Your task to perform on an android device: turn off wifi Image 0: 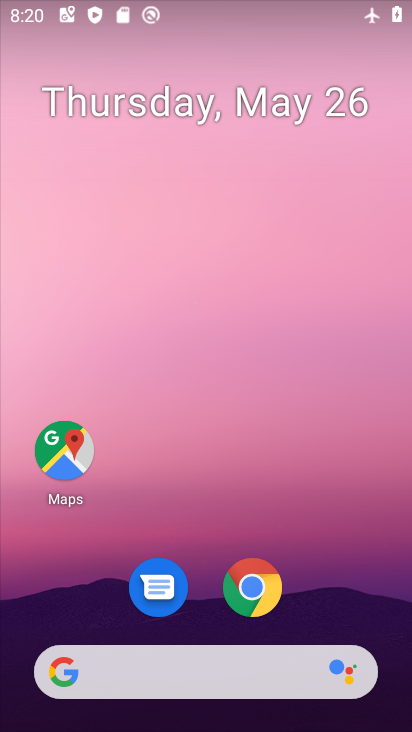
Step 0: drag from (206, 622) to (208, 258)
Your task to perform on an android device: turn off wifi Image 1: 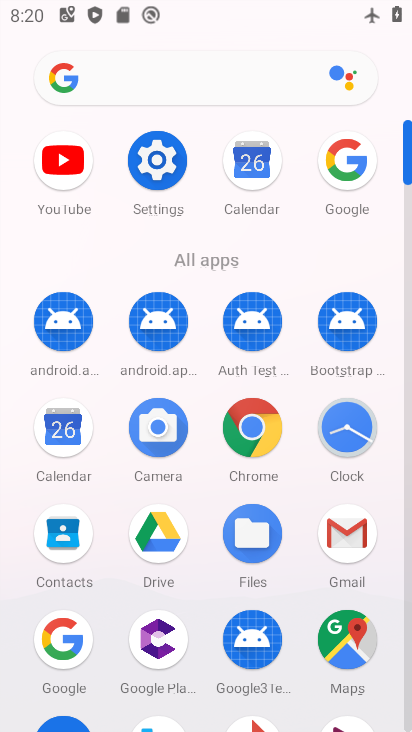
Step 1: click (180, 156)
Your task to perform on an android device: turn off wifi Image 2: 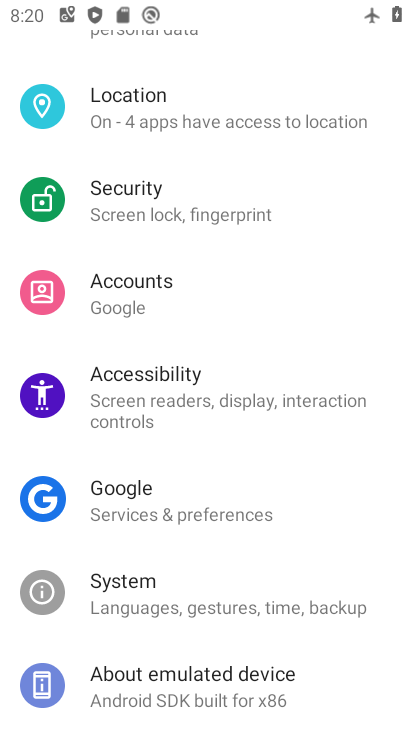
Step 2: drag from (180, 156) to (192, 474)
Your task to perform on an android device: turn off wifi Image 3: 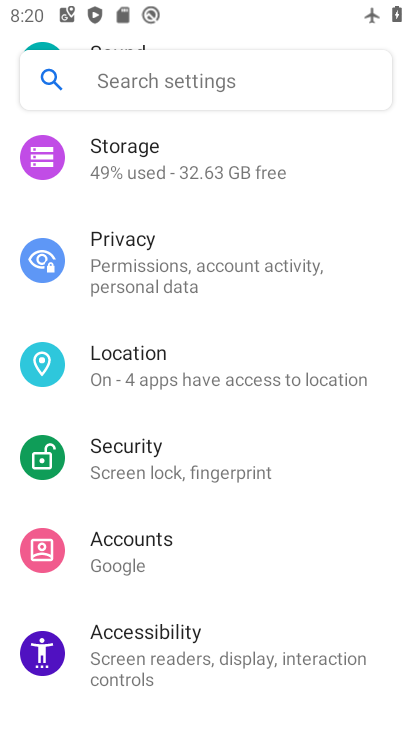
Step 3: drag from (269, 220) to (269, 510)
Your task to perform on an android device: turn off wifi Image 4: 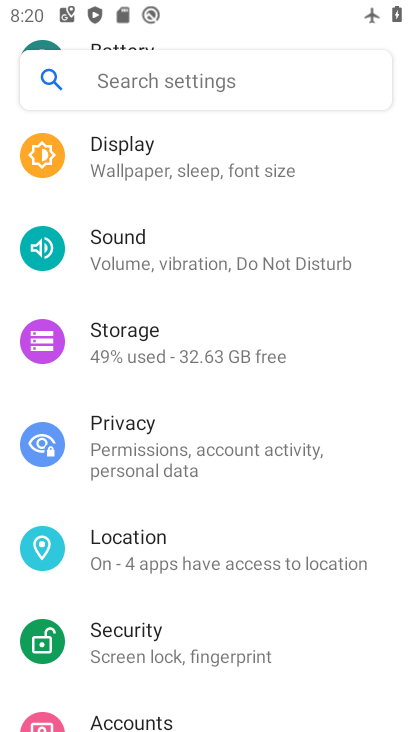
Step 4: drag from (195, 164) to (178, 539)
Your task to perform on an android device: turn off wifi Image 5: 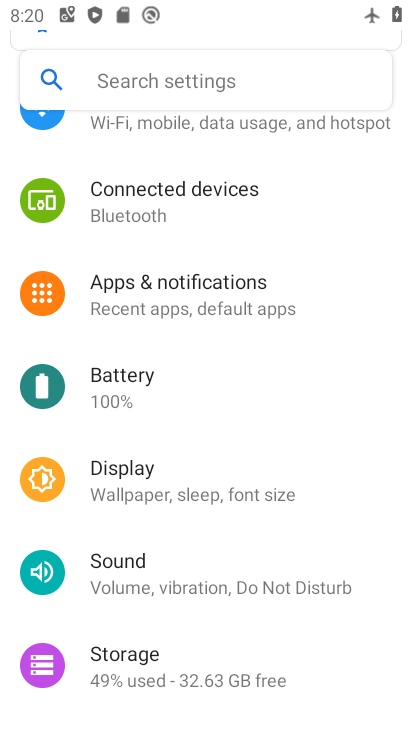
Step 5: drag from (123, 225) to (156, 520)
Your task to perform on an android device: turn off wifi Image 6: 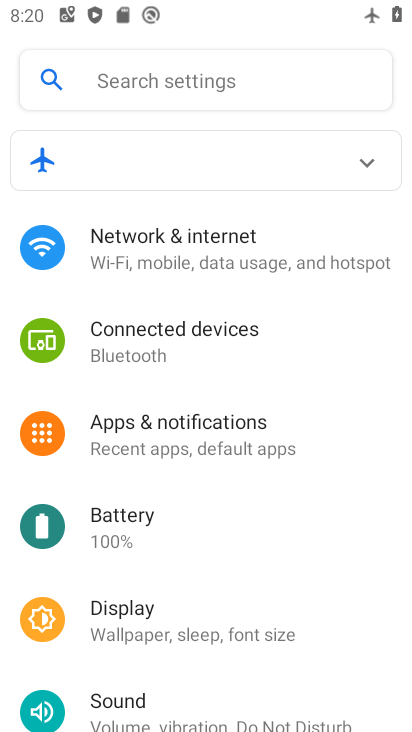
Step 6: click (176, 269)
Your task to perform on an android device: turn off wifi Image 7: 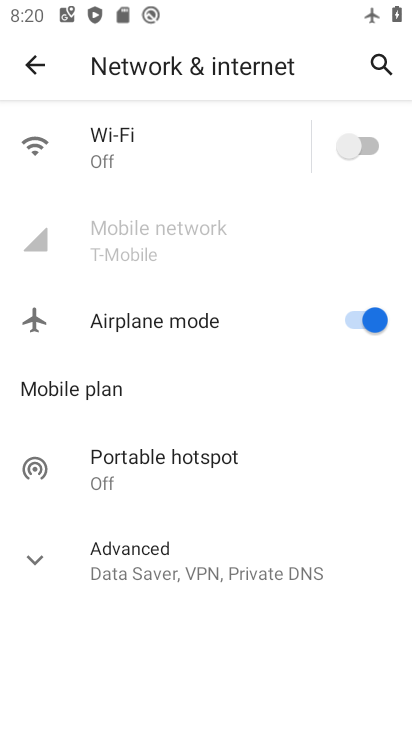
Step 7: task complete